Your task to perform on an android device: What's on my calendar tomorrow? Image 0: 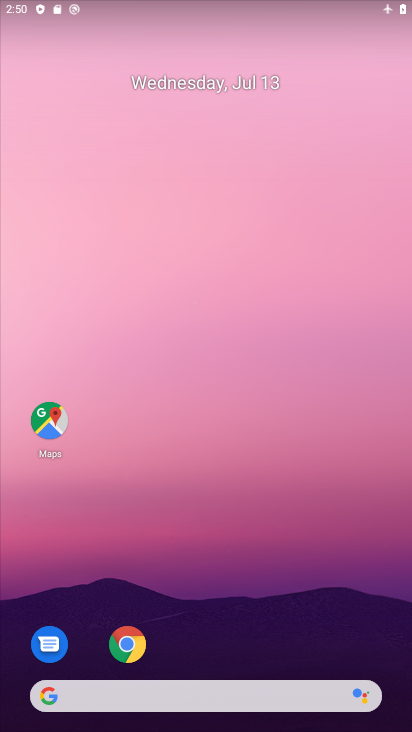
Step 0: drag from (215, 695) to (258, 201)
Your task to perform on an android device: What's on my calendar tomorrow? Image 1: 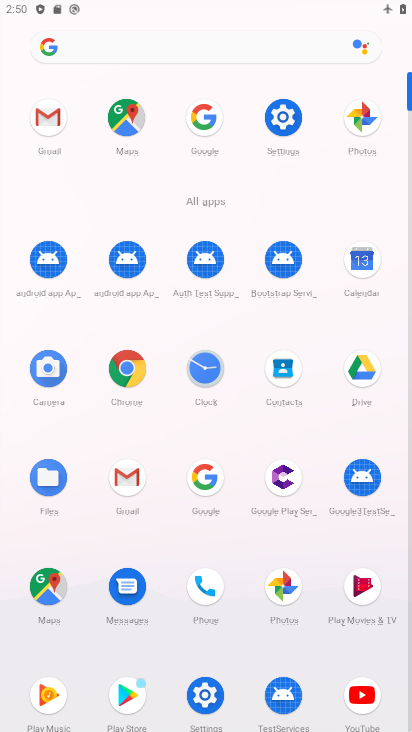
Step 1: click (362, 258)
Your task to perform on an android device: What's on my calendar tomorrow? Image 2: 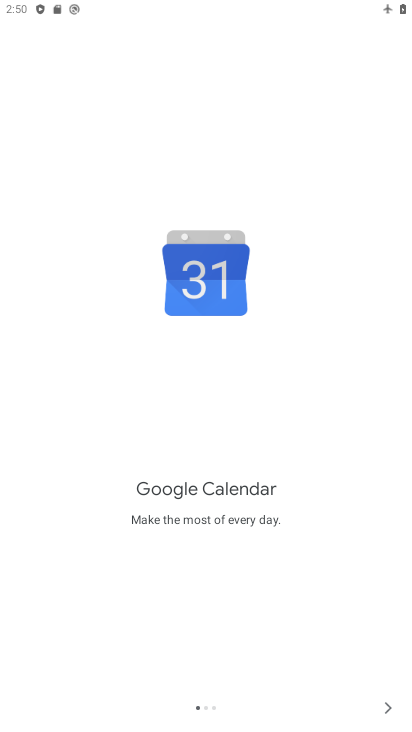
Step 2: click (388, 707)
Your task to perform on an android device: What's on my calendar tomorrow? Image 3: 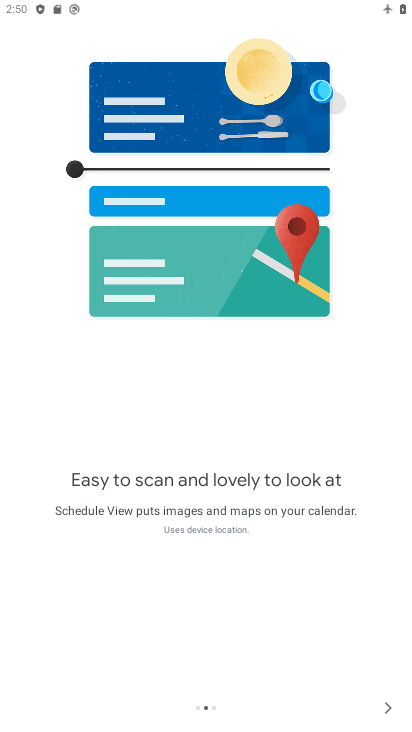
Step 3: click (388, 707)
Your task to perform on an android device: What's on my calendar tomorrow? Image 4: 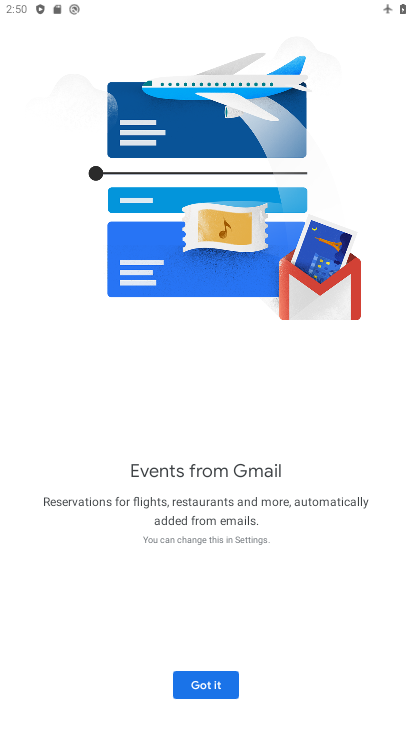
Step 4: click (203, 684)
Your task to perform on an android device: What's on my calendar tomorrow? Image 5: 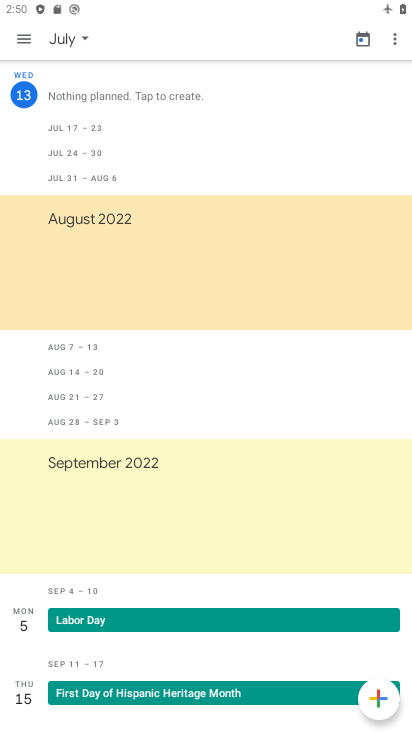
Step 5: click (84, 32)
Your task to perform on an android device: What's on my calendar tomorrow? Image 6: 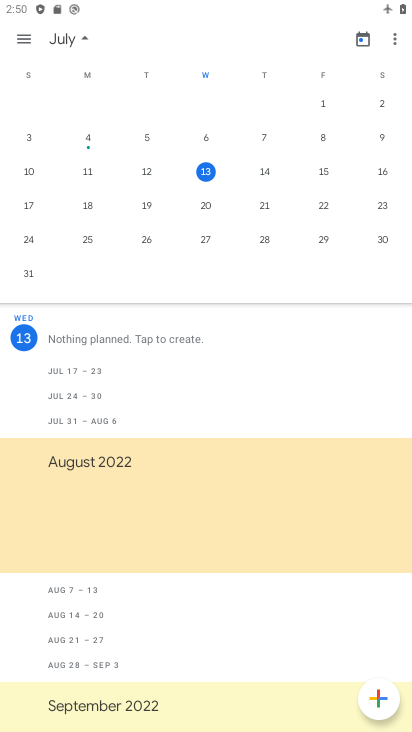
Step 6: click (267, 170)
Your task to perform on an android device: What's on my calendar tomorrow? Image 7: 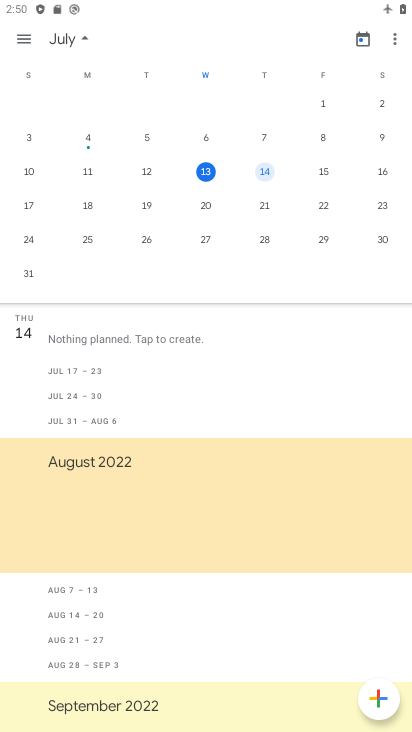
Step 7: click (33, 33)
Your task to perform on an android device: What's on my calendar tomorrow? Image 8: 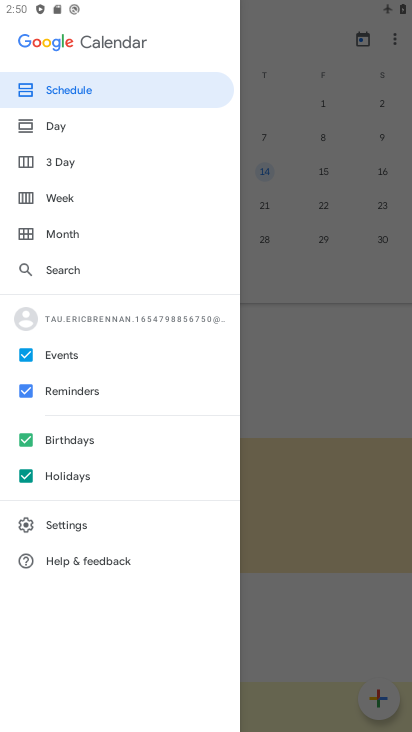
Step 8: click (55, 93)
Your task to perform on an android device: What's on my calendar tomorrow? Image 9: 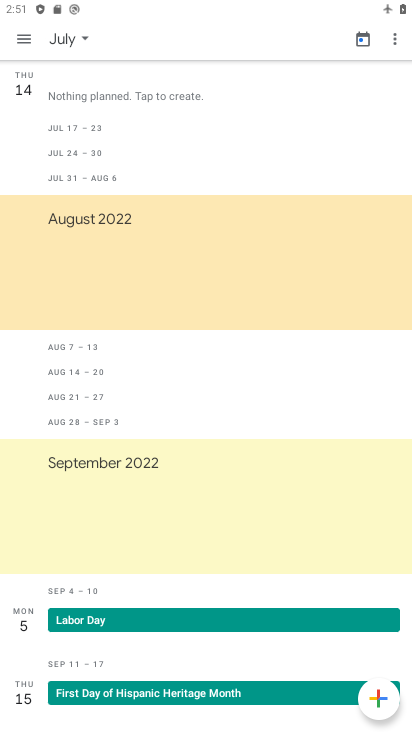
Step 9: task complete